Your task to perform on an android device: Open battery settings Image 0: 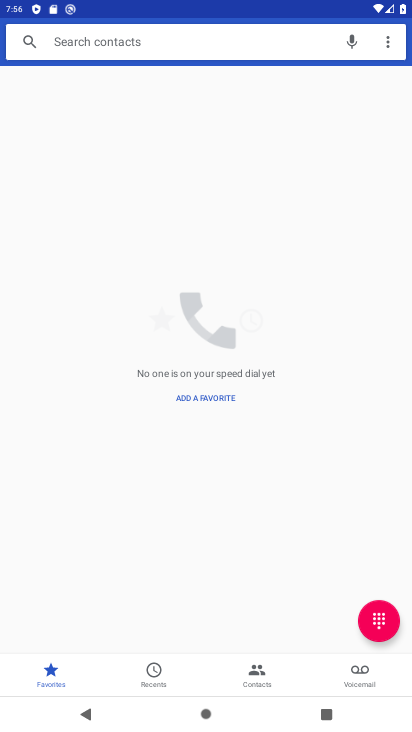
Step 0: press home button
Your task to perform on an android device: Open battery settings Image 1: 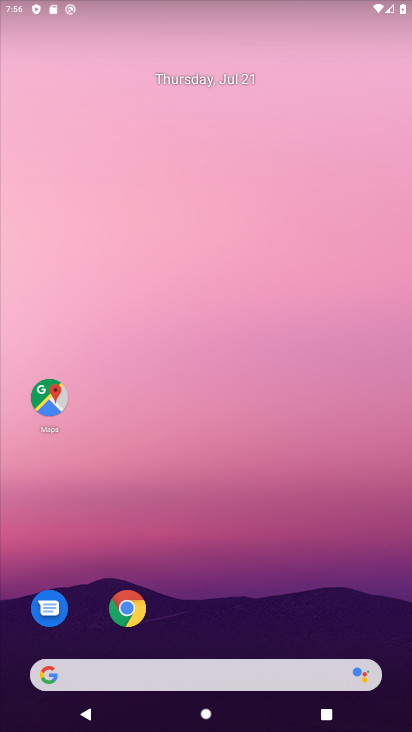
Step 1: drag from (216, 640) to (219, 17)
Your task to perform on an android device: Open battery settings Image 2: 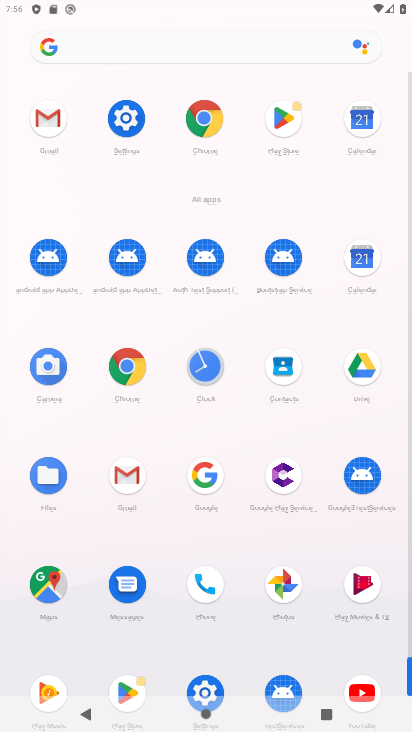
Step 2: click (120, 114)
Your task to perform on an android device: Open battery settings Image 3: 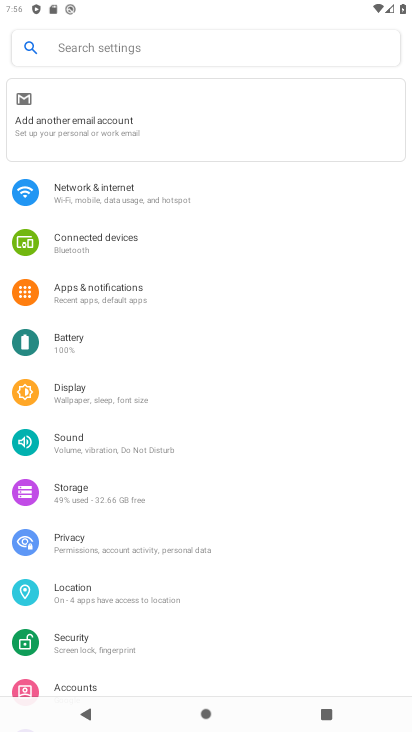
Step 3: click (84, 340)
Your task to perform on an android device: Open battery settings Image 4: 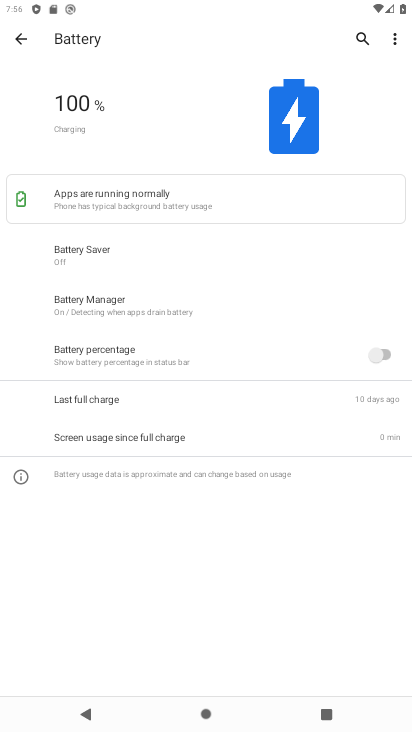
Step 4: task complete